Your task to perform on an android device: Show me popular games on the Play Store Image 0: 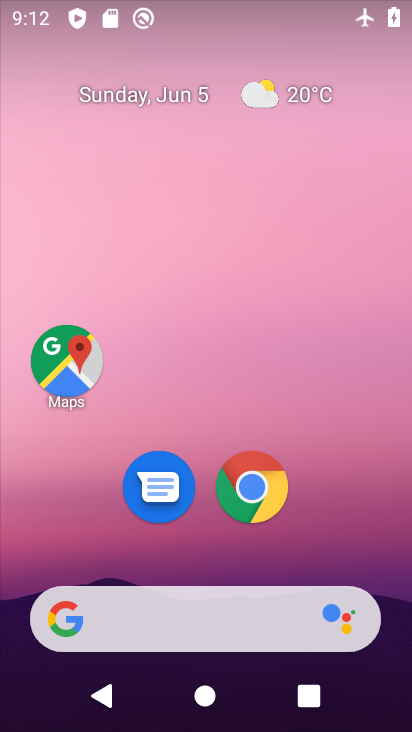
Step 0: drag from (260, 534) to (292, 184)
Your task to perform on an android device: Show me popular games on the Play Store Image 1: 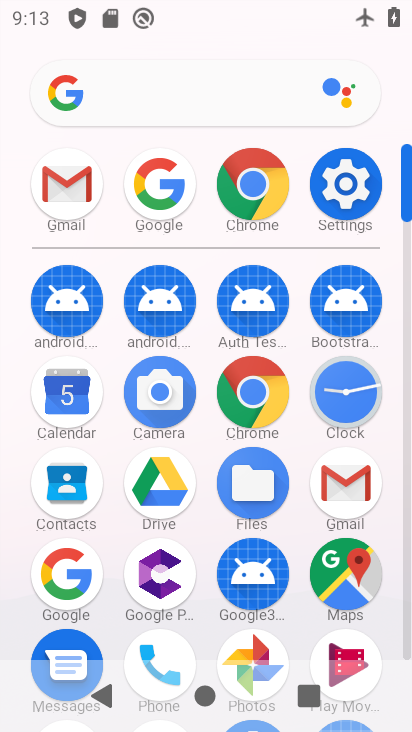
Step 1: drag from (207, 493) to (250, 218)
Your task to perform on an android device: Show me popular games on the Play Store Image 2: 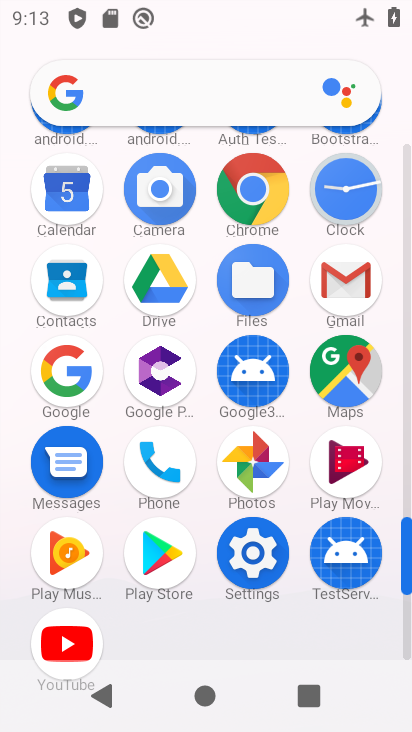
Step 2: click (167, 586)
Your task to perform on an android device: Show me popular games on the Play Store Image 3: 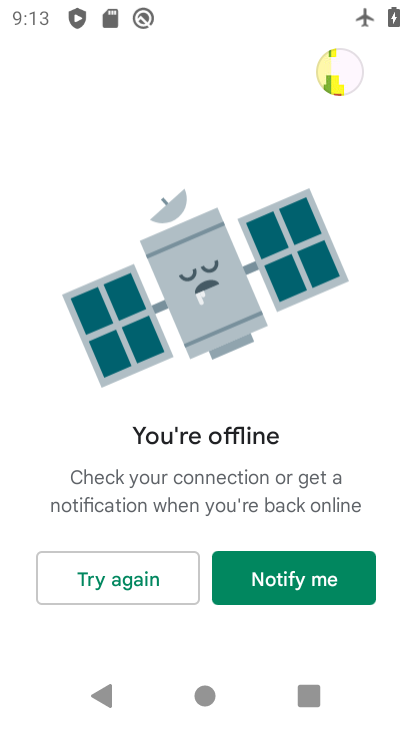
Step 3: task complete